Your task to perform on an android device: Search for Mexican restaurants on Maps Image 0: 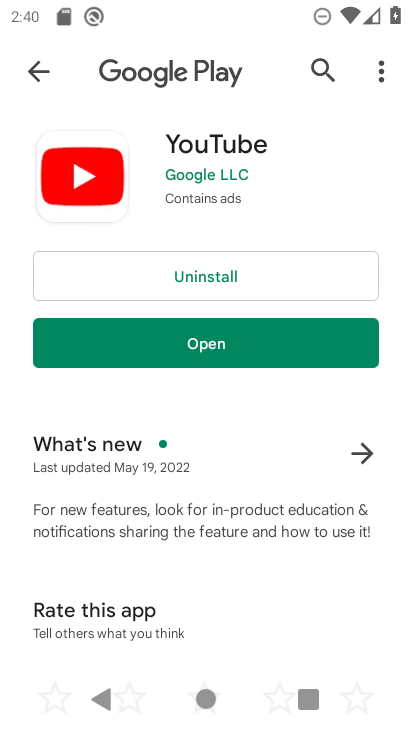
Step 0: press home button
Your task to perform on an android device: Search for Mexican restaurants on Maps Image 1: 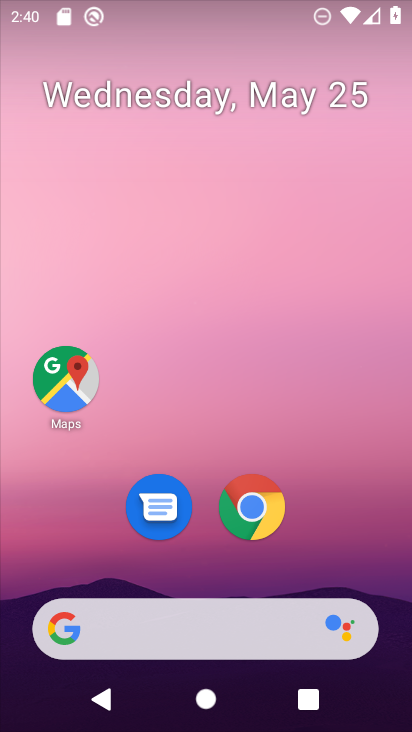
Step 1: drag from (200, 609) to (287, 194)
Your task to perform on an android device: Search for Mexican restaurants on Maps Image 2: 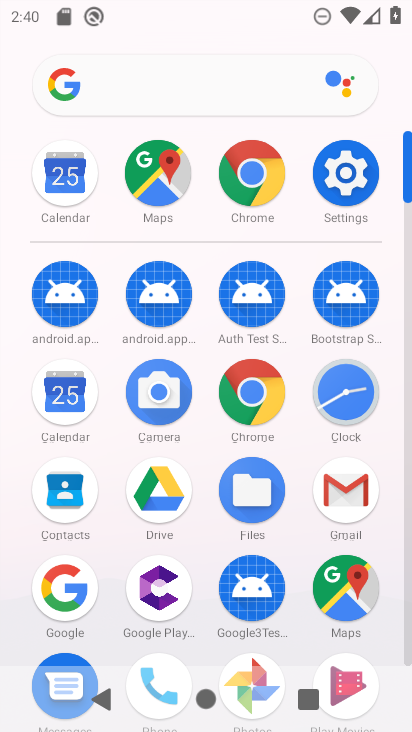
Step 2: click (360, 582)
Your task to perform on an android device: Search for Mexican restaurants on Maps Image 3: 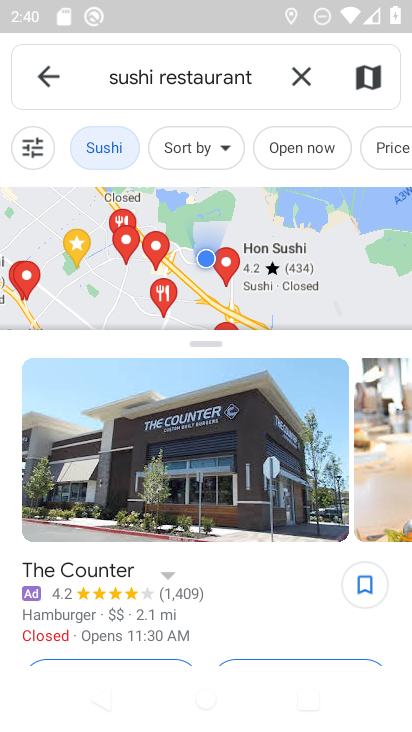
Step 3: click (293, 65)
Your task to perform on an android device: Search for Mexican restaurants on Maps Image 4: 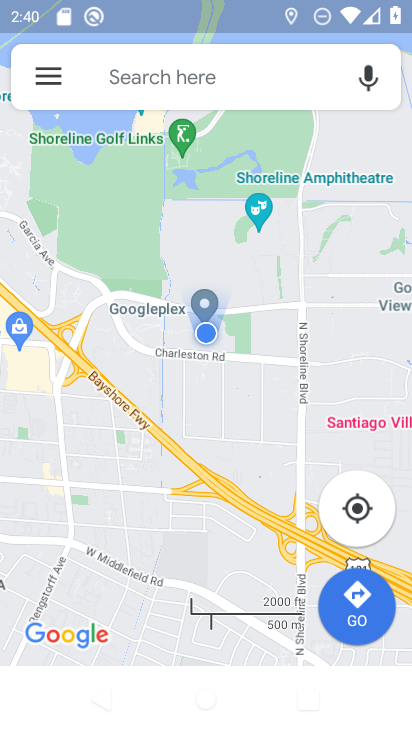
Step 4: click (222, 99)
Your task to perform on an android device: Search for Mexican restaurants on Maps Image 5: 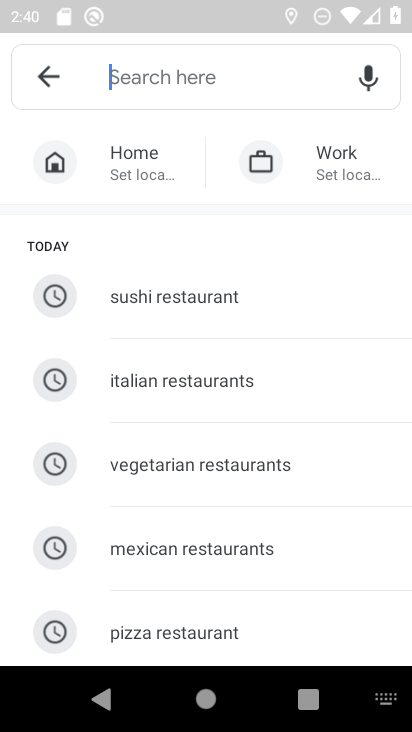
Step 5: click (228, 544)
Your task to perform on an android device: Search for Mexican restaurants on Maps Image 6: 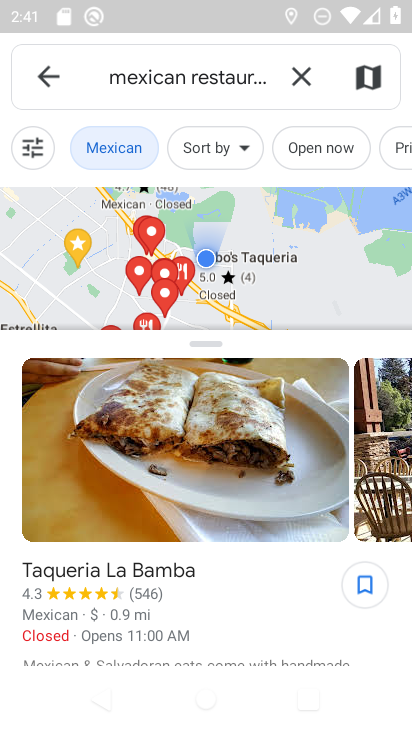
Step 6: task complete